Your task to perform on an android device: turn on showing notifications on the lock screen Image 0: 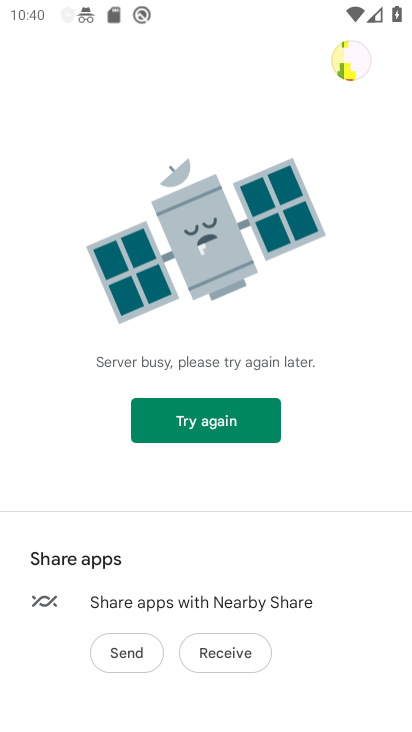
Step 0: press home button
Your task to perform on an android device: turn on showing notifications on the lock screen Image 1: 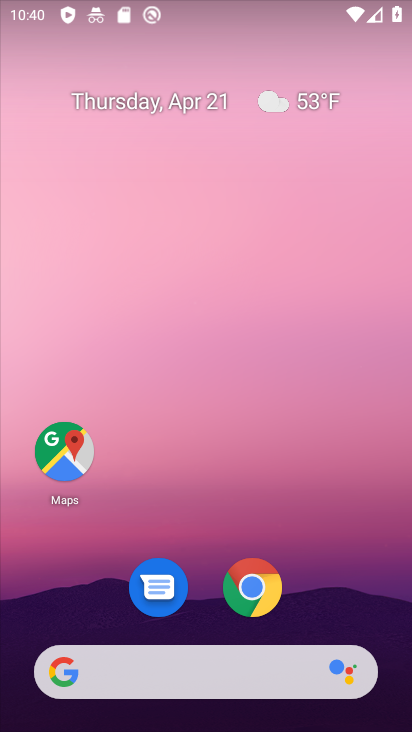
Step 1: drag from (249, 662) to (235, 2)
Your task to perform on an android device: turn on showing notifications on the lock screen Image 2: 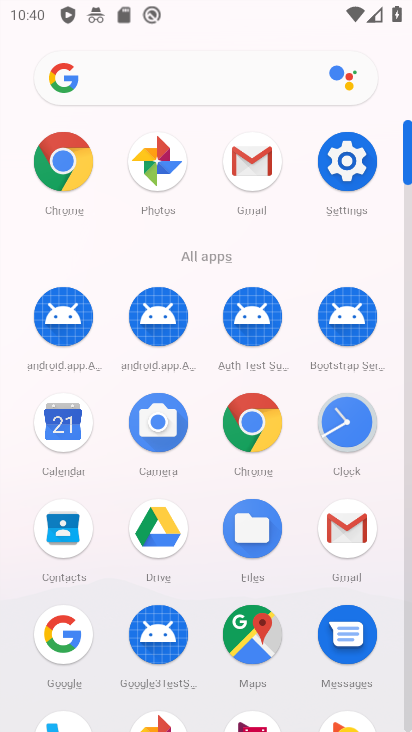
Step 2: click (334, 155)
Your task to perform on an android device: turn on showing notifications on the lock screen Image 3: 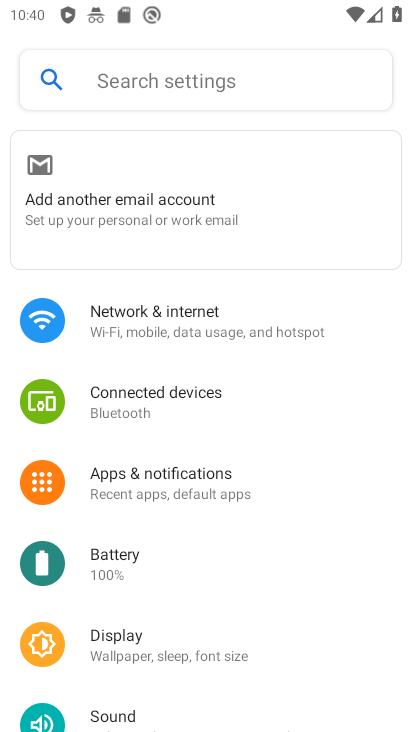
Step 3: drag from (153, 555) to (81, 0)
Your task to perform on an android device: turn on showing notifications on the lock screen Image 4: 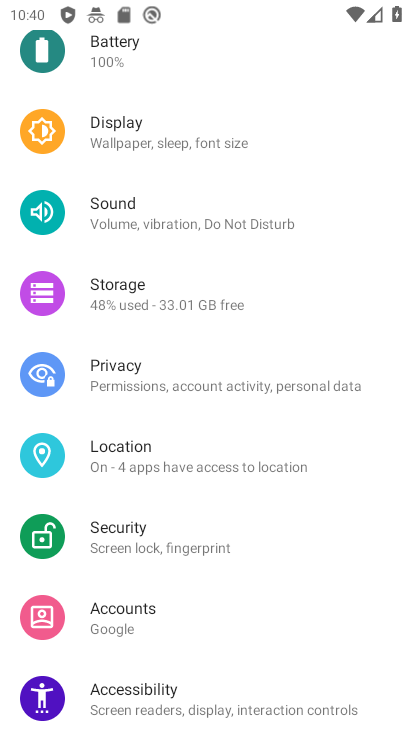
Step 4: drag from (149, 254) to (160, 545)
Your task to perform on an android device: turn on showing notifications on the lock screen Image 5: 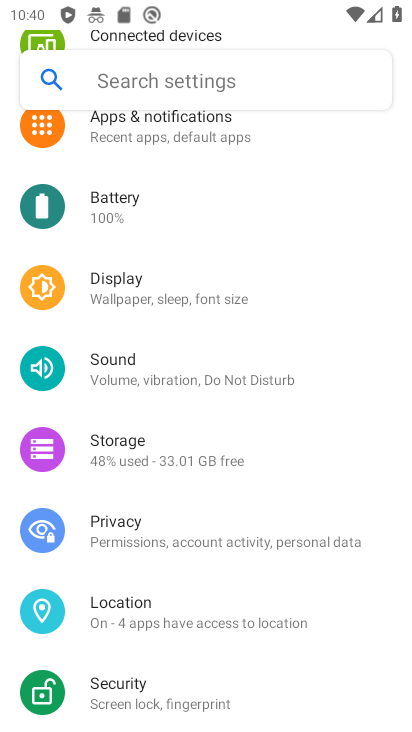
Step 5: click (126, 143)
Your task to perform on an android device: turn on showing notifications on the lock screen Image 6: 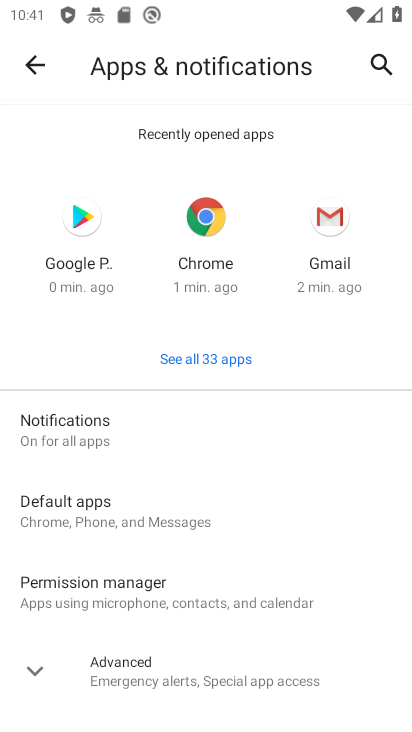
Step 6: click (93, 438)
Your task to perform on an android device: turn on showing notifications on the lock screen Image 7: 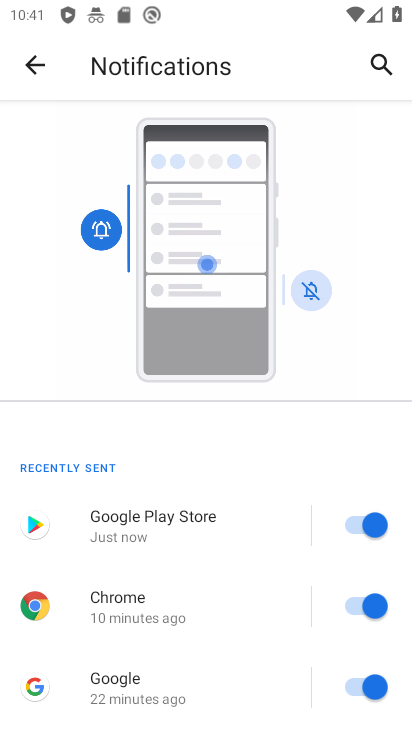
Step 7: drag from (187, 658) to (177, 198)
Your task to perform on an android device: turn on showing notifications on the lock screen Image 8: 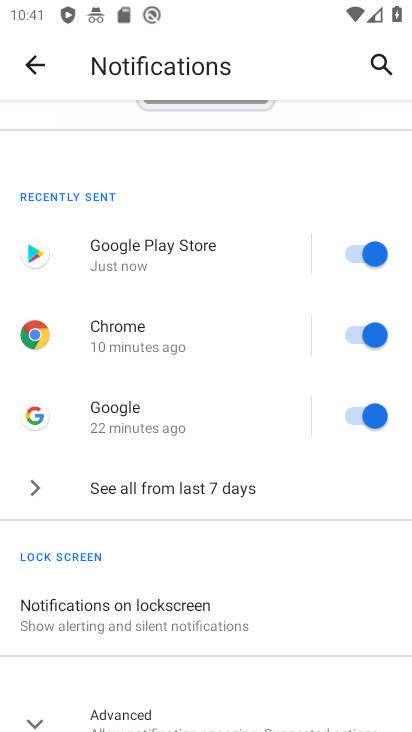
Step 8: drag from (219, 632) to (206, 362)
Your task to perform on an android device: turn on showing notifications on the lock screen Image 9: 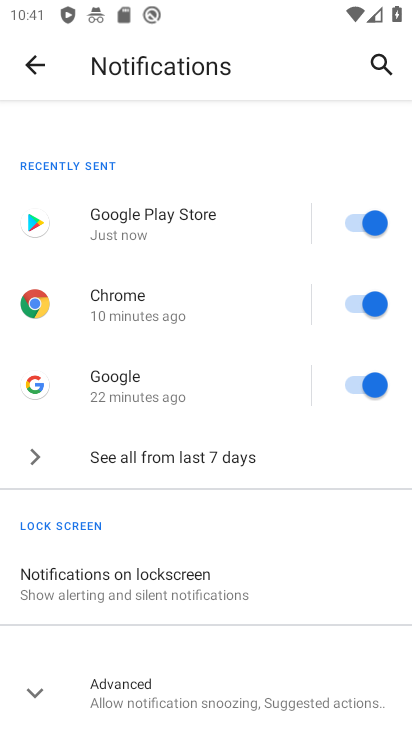
Step 9: click (187, 577)
Your task to perform on an android device: turn on showing notifications on the lock screen Image 10: 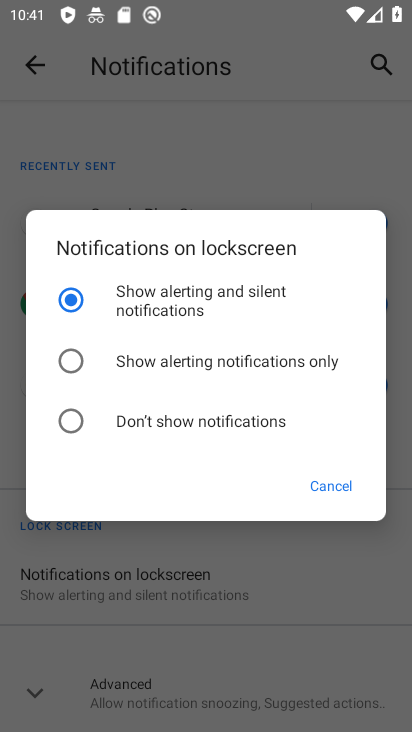
Step 10: click (138, 290)
Your task to perform on an android device: turn on showing notifications on the lock screen Image 11: 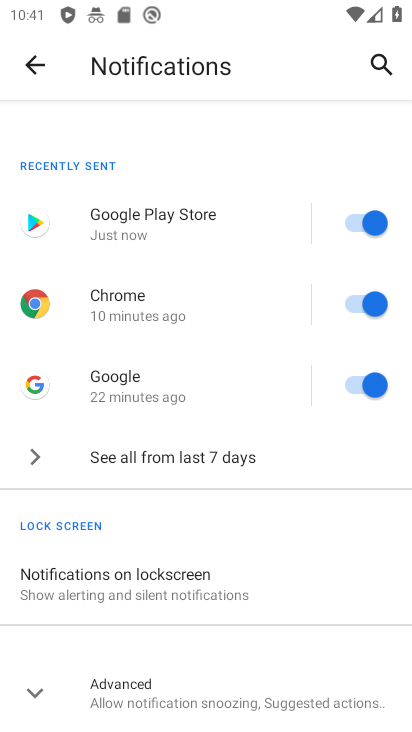
Step 11: task complete